Your task to perform on an android device: When is my next meeting? Image 0: 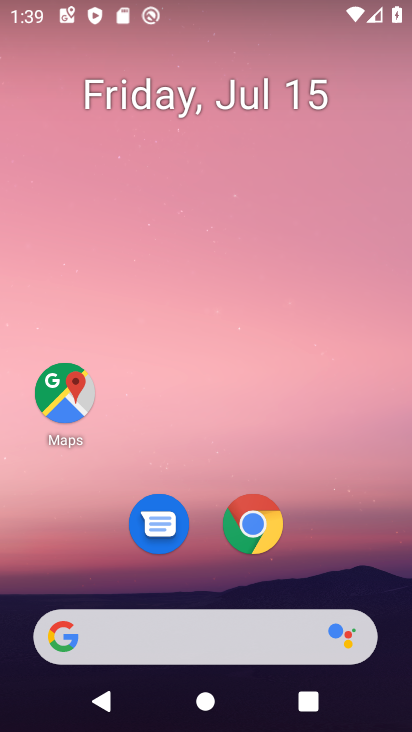
Step 0: drag from (209, 579) to (269, 164)
Your task to perform on an android device: When is my next meeting? Image 1: 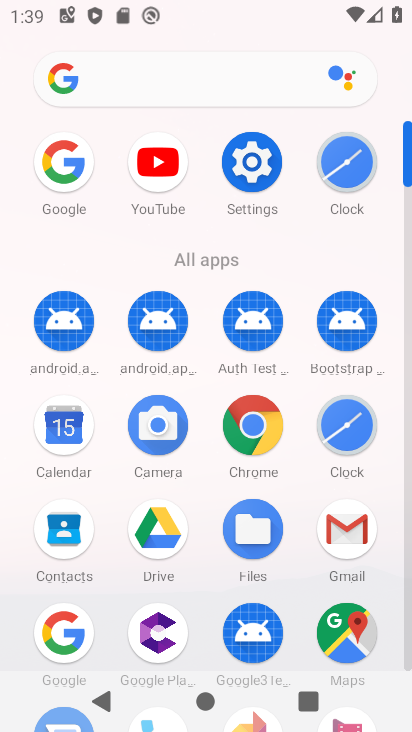
Step 1: click (52, 428)
Your task to perform on an android device: When is my next meeting? Image 2: 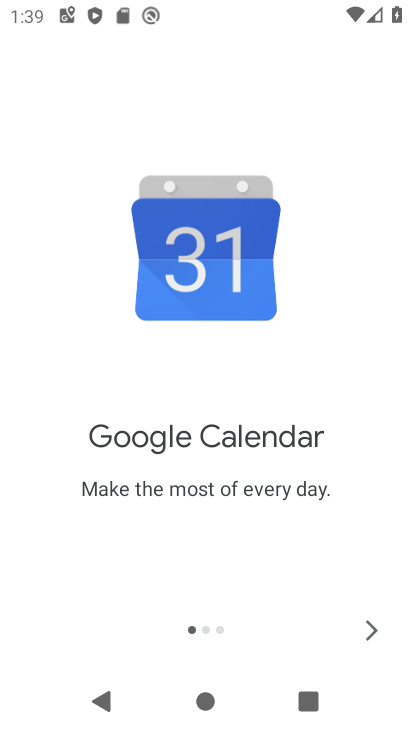
Step 2: click (368, 628)
Your task to perform on an android device: When is my next meeting? Image 3: 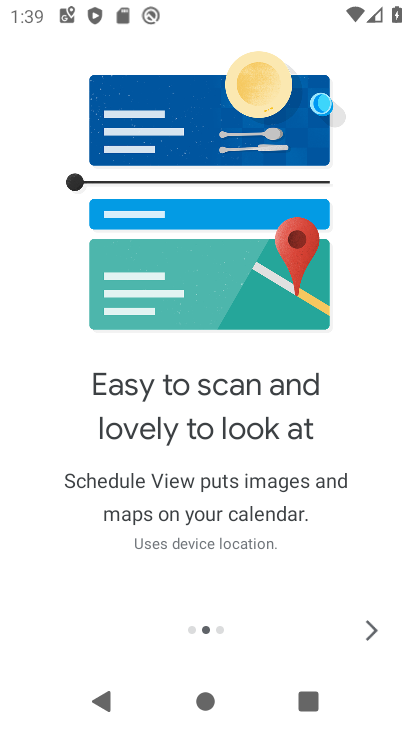
Step 3: click (368, 628)
Your task to perform on an android device: When is my next meeting? Image 4: 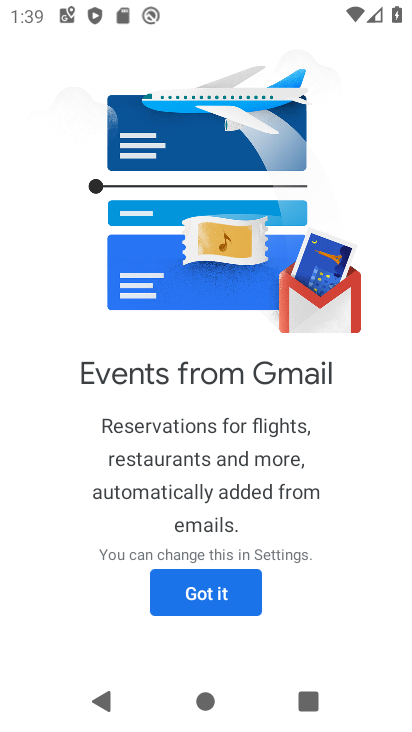
Step 4: click (228, 598)
Your task to perform on an android device: When is my next meeting? Image 5: 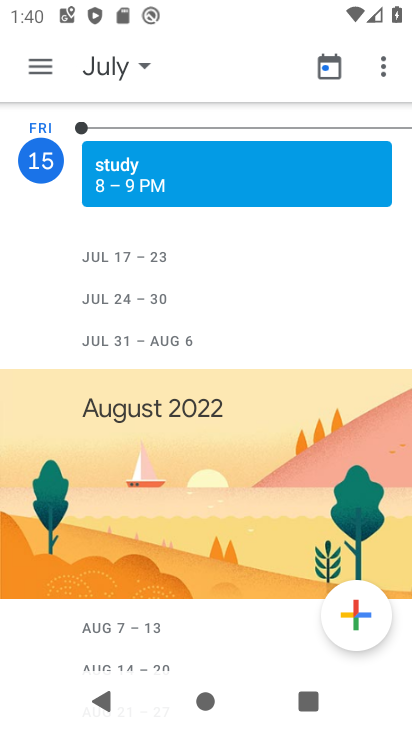
Step 5: task complete